Your task to perform on an android device: Go to eBay Image 0: 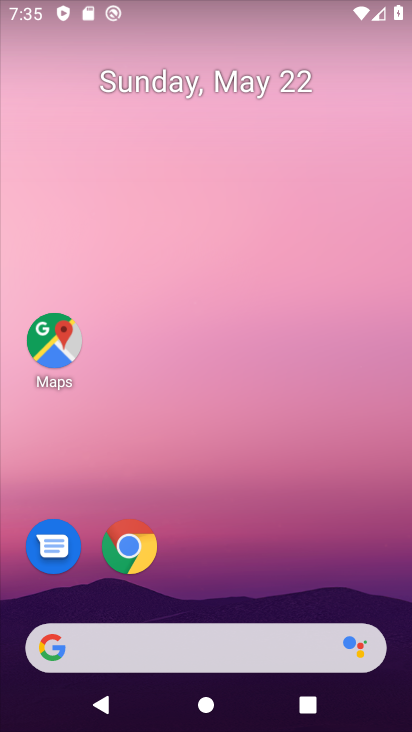
Step 0: drag from (355, 543) to (319, 55)
Your task to perform on an android device: Go to eBay Image 1: 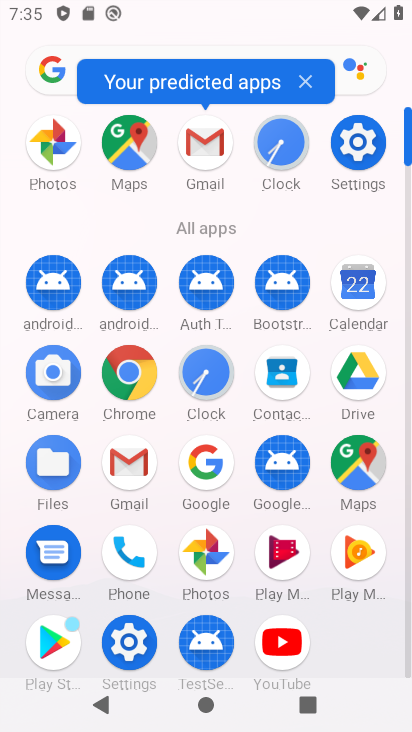
Step 1: click (143, 380)
Your task to perform on an android device: Go to eBay Image 2: 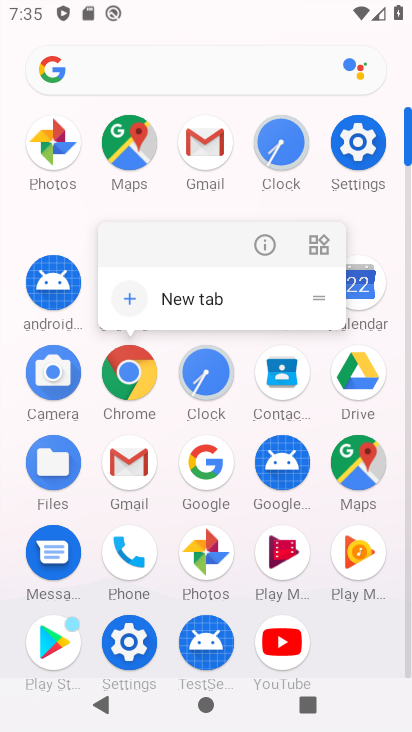
Step 2: click (140, 382)
Your task to perform on an android device: Go to eBay Image 3: 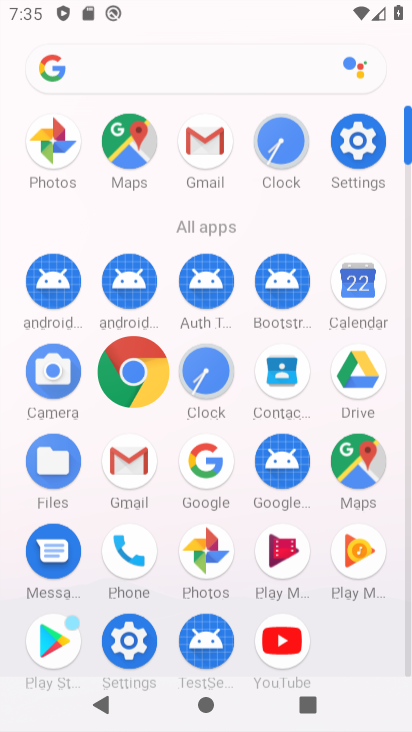
Step 3: click (138, 378)
Your task to perform on an android device: Go to eBay Image 4: 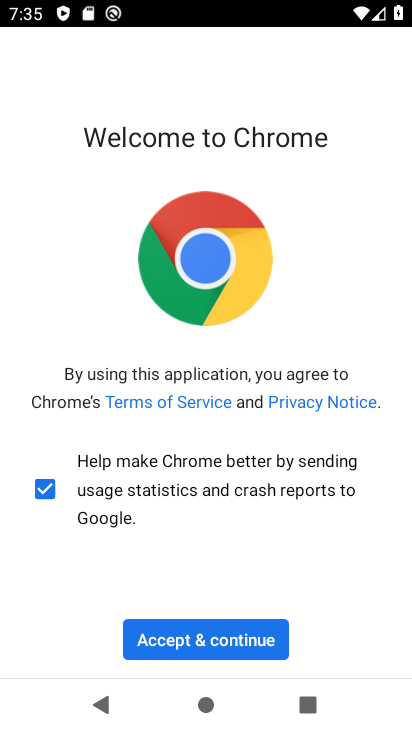
Step 4: click (221, 641)
Your task to perform on an android device: Go to eBay Image 5: 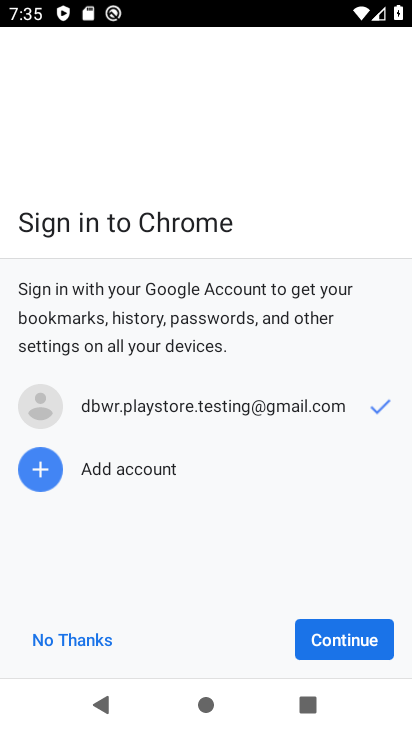
Step 5: click (99, 642)
Your task to perform on an android device: Go to eBay Image 6: 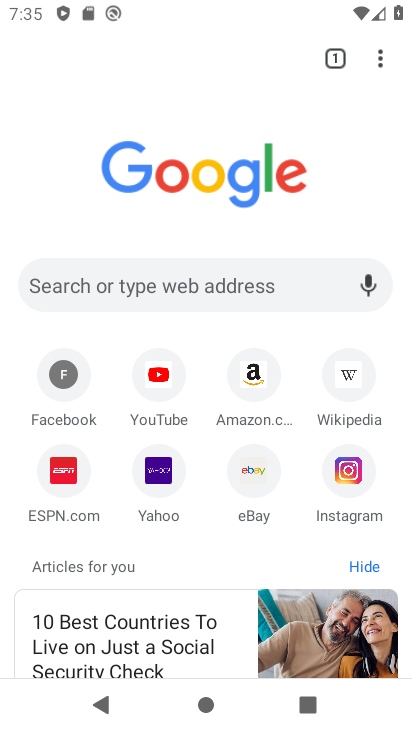
Step 6: click (257, 474)
Your task to perform on an android device: Go to eBay Image 7: 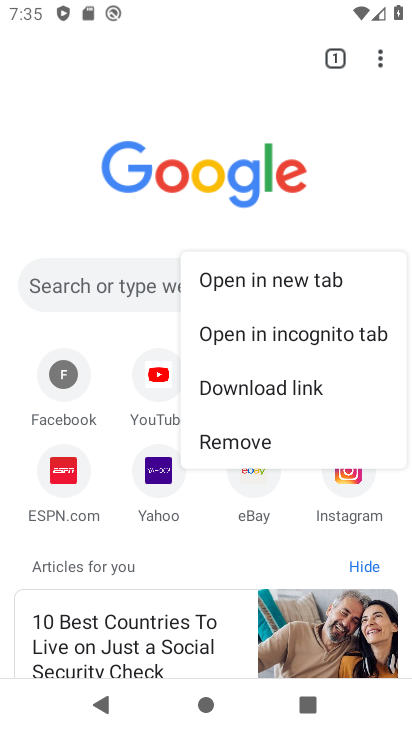
Step 7: click (254, 491)
Your task to perform on an android device: Go to eBay Image 8: 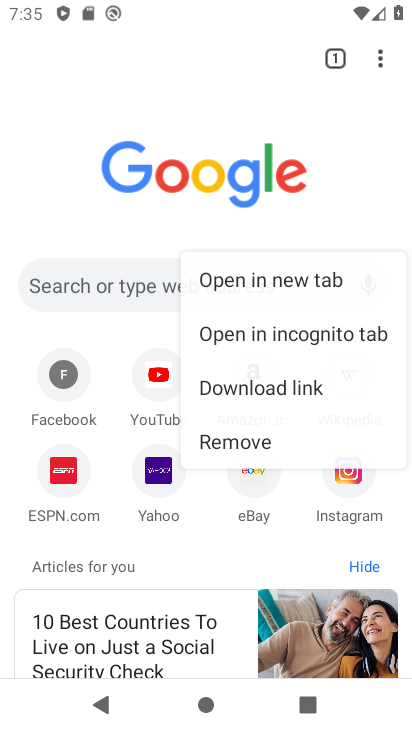
Step 8: click (246, 482)
Your task to perform on an android device: Go to eBay Image 9: 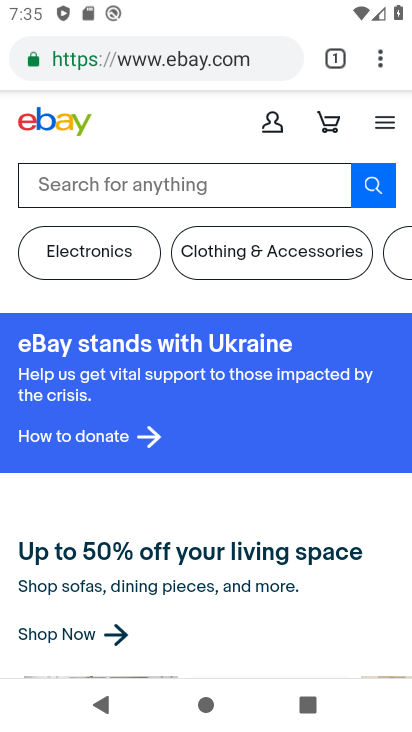
Step 9: task complete